Your task to perform on an android device: open a new tab in the chrome app Image 0: 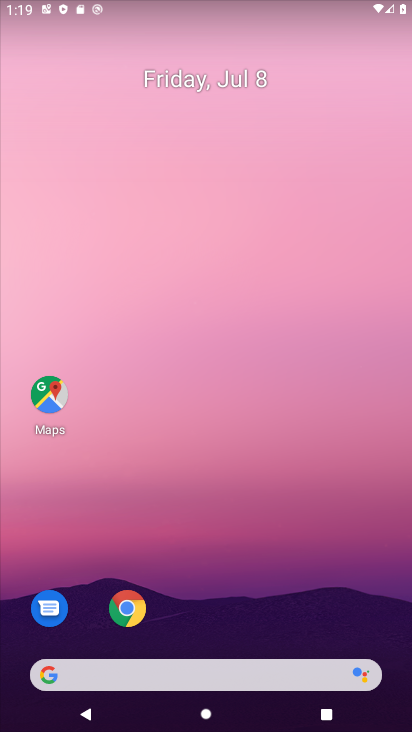
Step 0: click (131, 611)
Your task to perform on an android device: open a new tab in the chrome app Image 1: 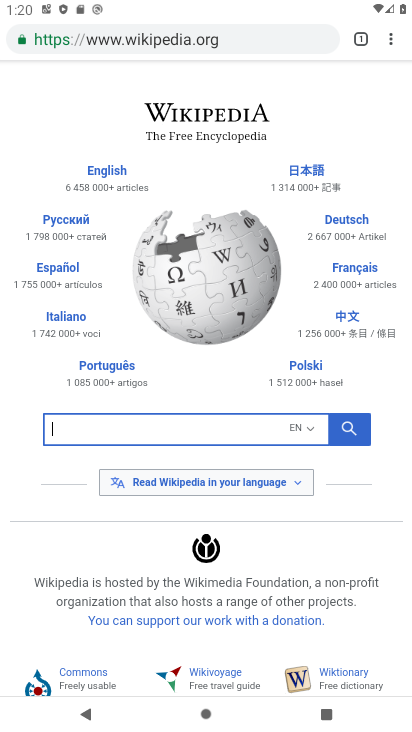
Step 1: click (391, 40)
Your task to perform on an android device: open a new tab in the chrome app Image 2: 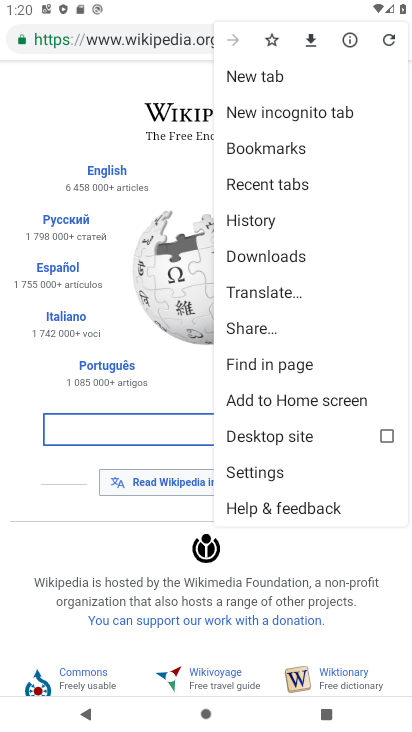
Step 2: click (264, 72)
Your task to perform on an android device: open a new tab in the chrome app Image 3: 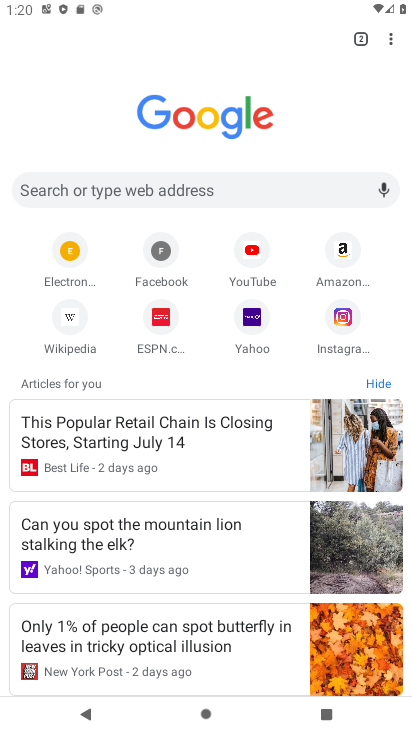
Step 3: task complete